Your task to perform on an android device: refresh tabs in the chrome app Image 0: 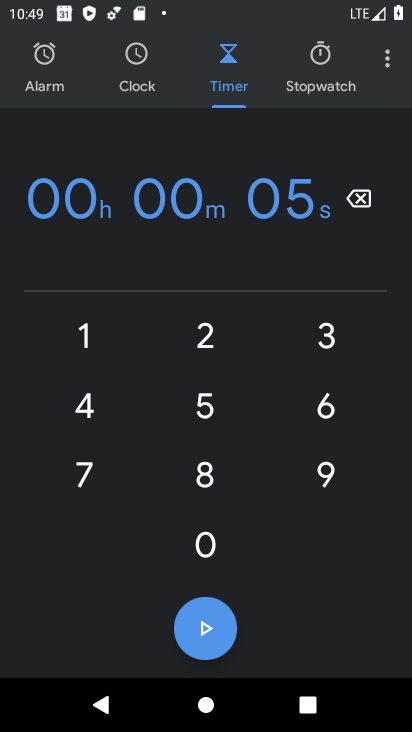
Step 0: press home button
Your task to perform on an android device: refresh tabs in the chrome app Image 1: 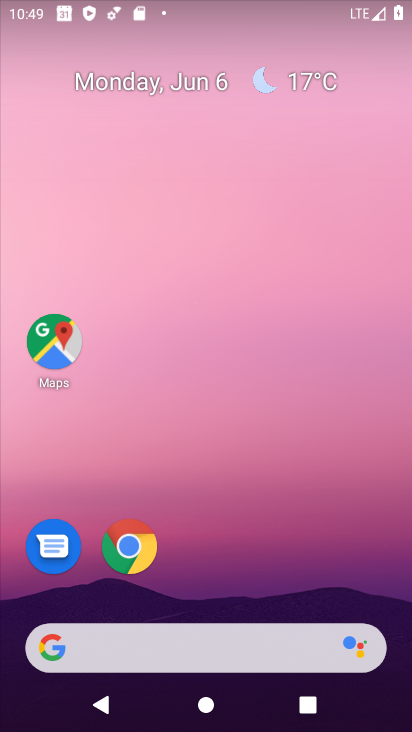
Step 1: click (126, 547)
Your task to perform on an android device: refresh tabs in the chrome app Image 2: 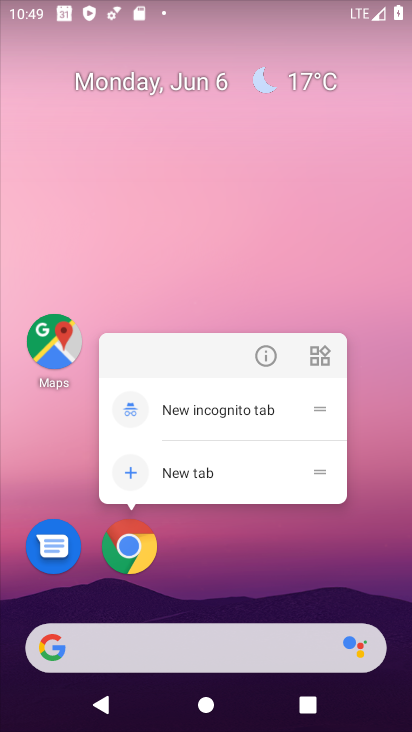
Step 2: click (136, 546)
Your task to perform on an android device: refresh tabs in the chrome app Image 3: 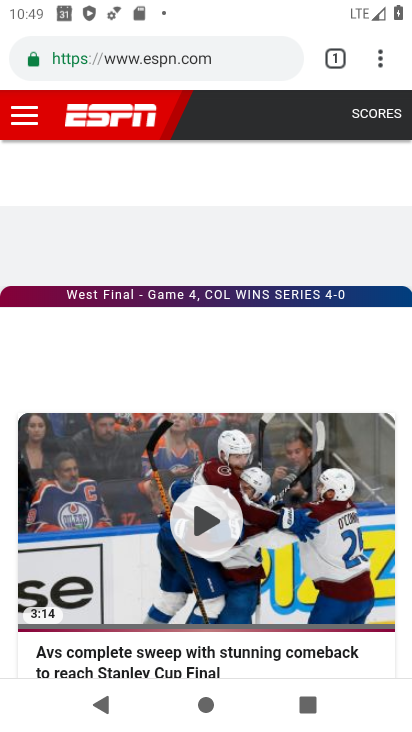
Step 3: task complete